Your task to perform on an android device: change timer sound Image 0: 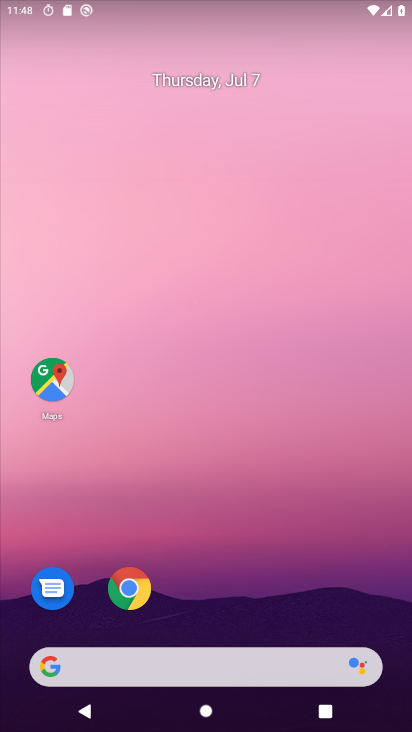
Step 0: drag from (191, 666) to (333, 58)
Your task to perform on an android device: change timer sound Image 1: 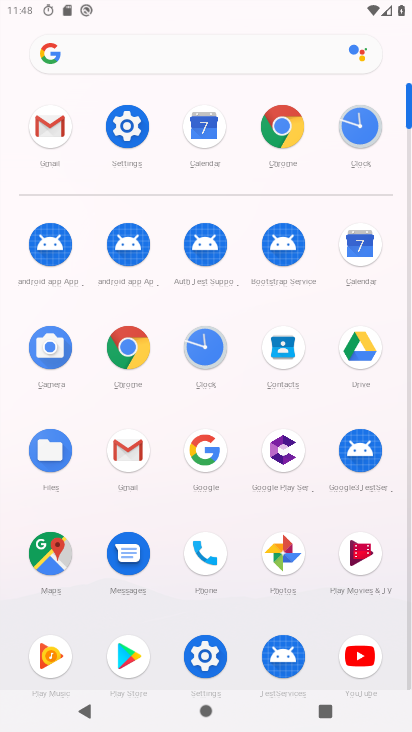
Step 1: click (364, 127)
Your task to perform on an android device: change timer sound Image 2: 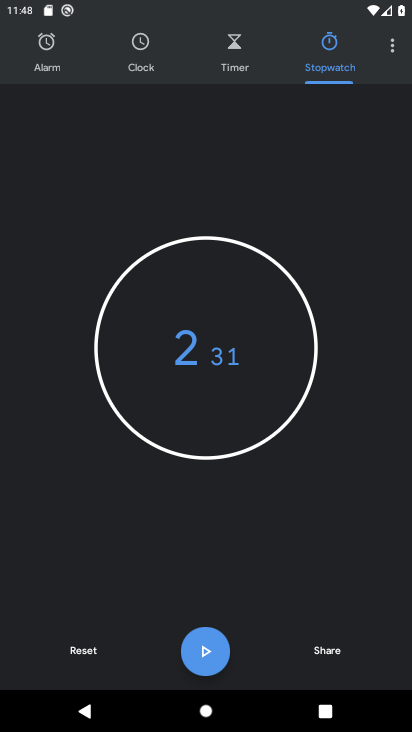
Step 2: click (392, 50)
Your task to perform on an android device: change timer sound Image 3: 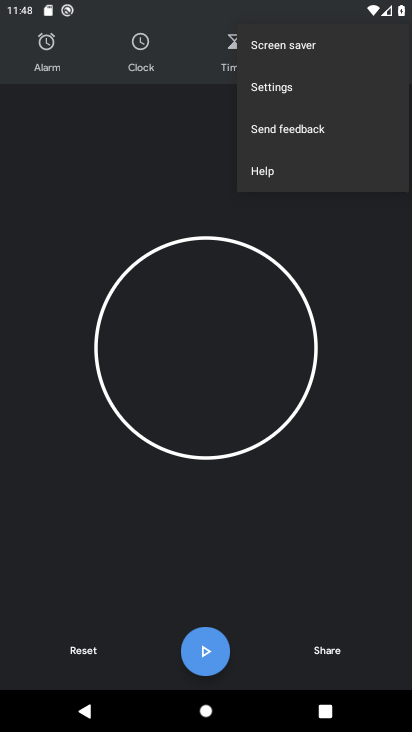
Step 3: click (277, 83)
Your task to perform on an android device: change timer sound Image 4: 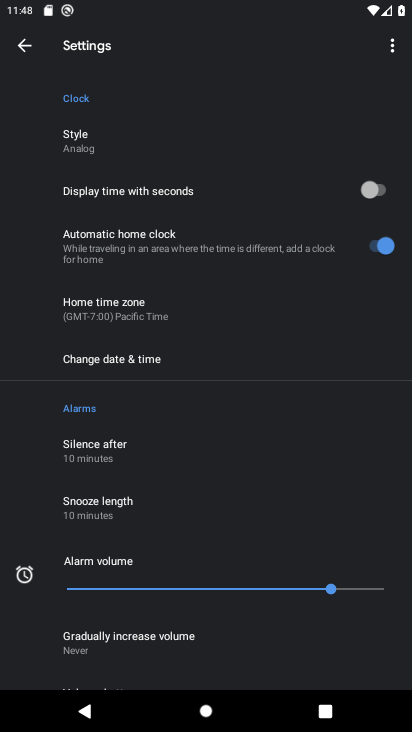
Step 4: drag from (163, 629) to (290, 110)
Your task to perform on an android device: change timer sound Image 5: 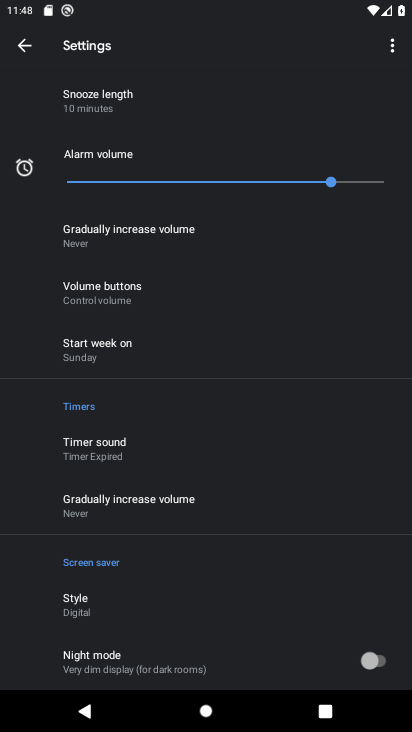
Step 5: click (124, 443)
Your task to perform on an android device: change timer sound Image 6: 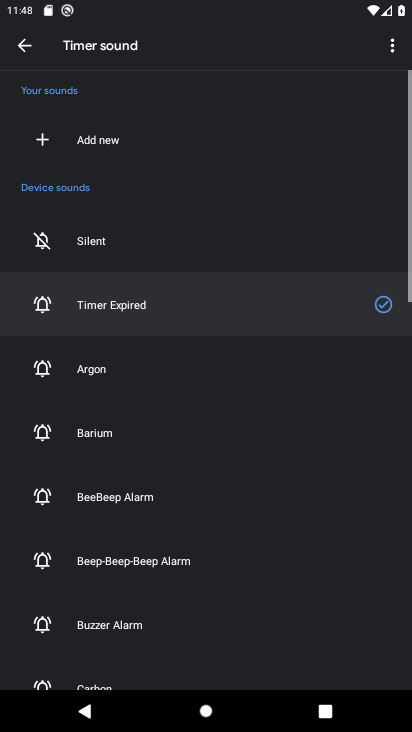
Step 6: click (89, 435)
Your task to perform on an android device: change timer sound Image 7: 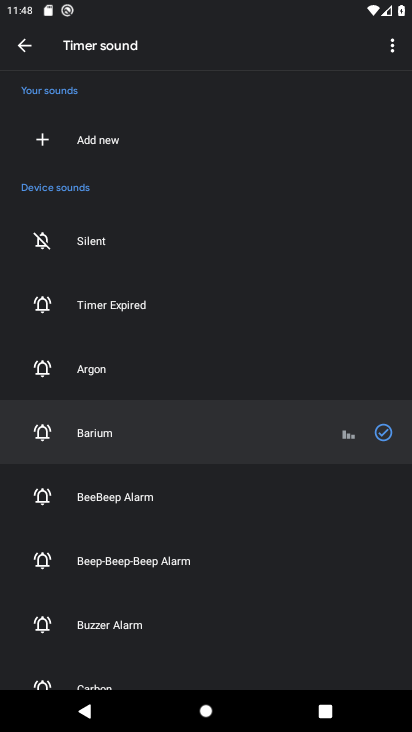
Step 7: task complete